Your task to perform on an android device: Open Google Maps and go to "Timeline" Image 0: 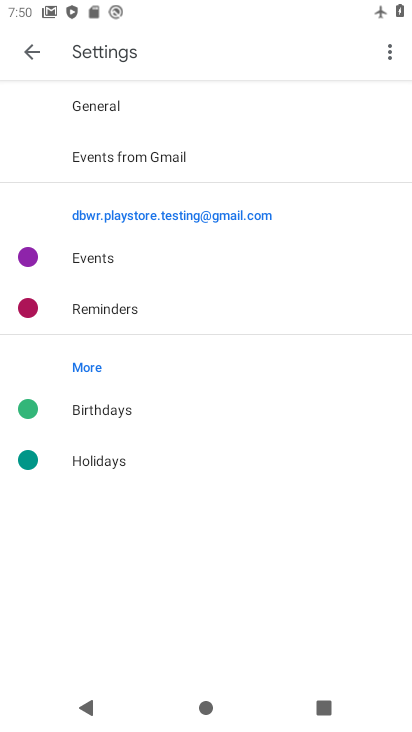
Step 0: press back button
Your task to perform on an android device: Open Google Maps and go to "Timeline" Image 1: 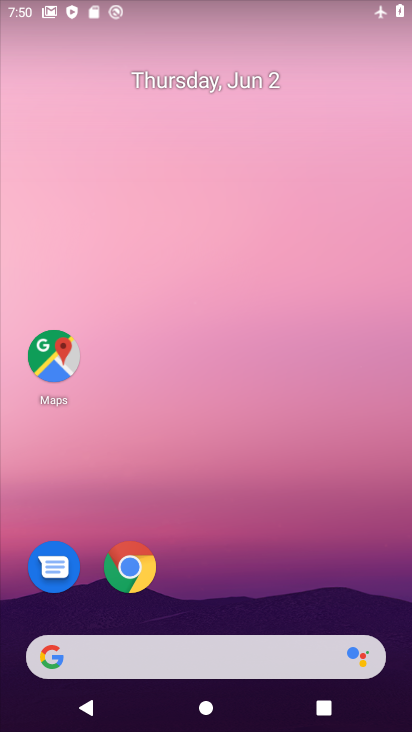
Step 1: click (52, 357)
Your task to perform on an android device: Open Google Maps and go to "Timeline" Image 2: 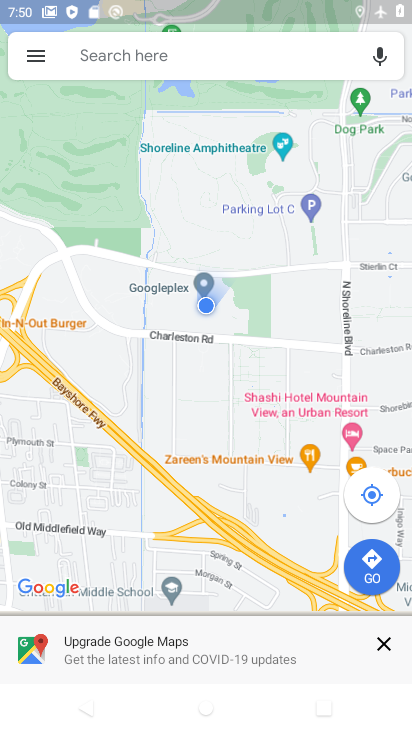
Step 2: click (37, 56)
Your task to perform on an android device: Open Google Maps and go to "Timeline" Image 3: 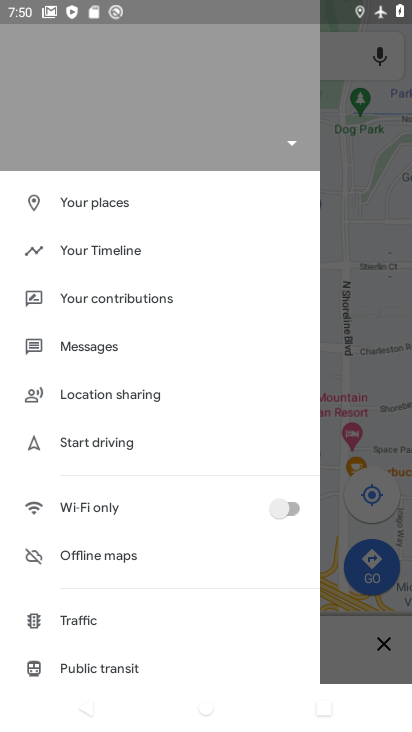
Step 3: click (107, 250)
Your task to perform on an android device: Open Google Maps and go to "Timeline" Image 4: 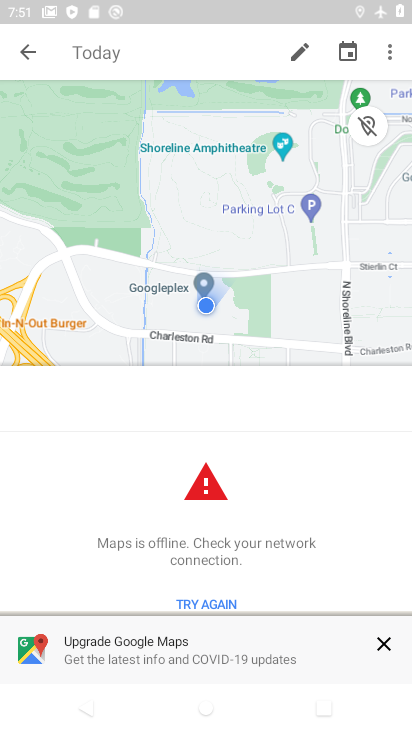
Step 4: task complete